Your task to perform on an android device: When is my next appointment? Image 0: 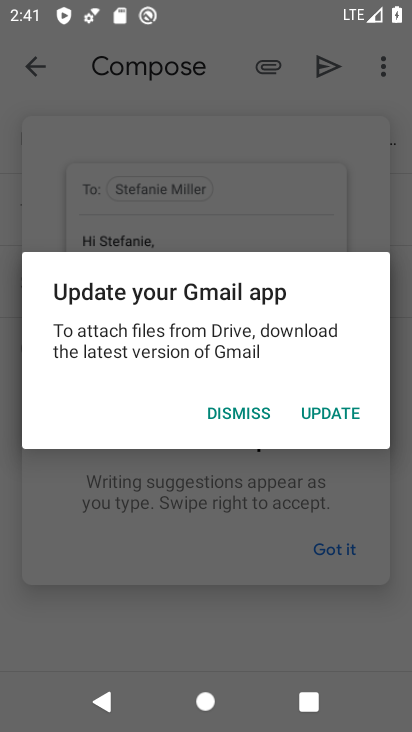
Step 0: press home button
Your task to perform on an android device: When is my next appointment? Image 1: 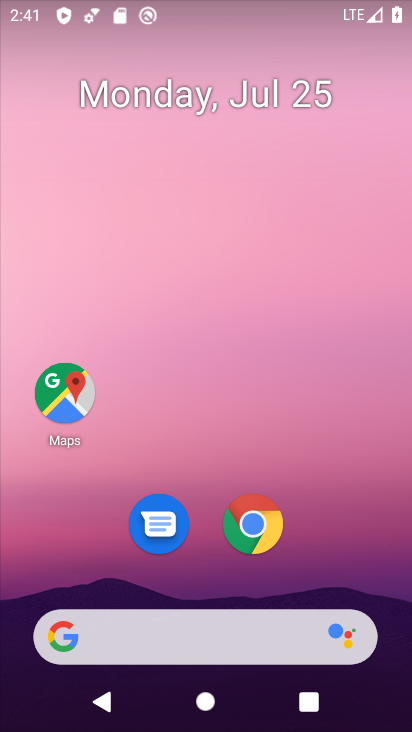
Step 1: drag from (348, 550) to (316, 17)
Your task to perform on an android device: When is my next appointment? Image 2: 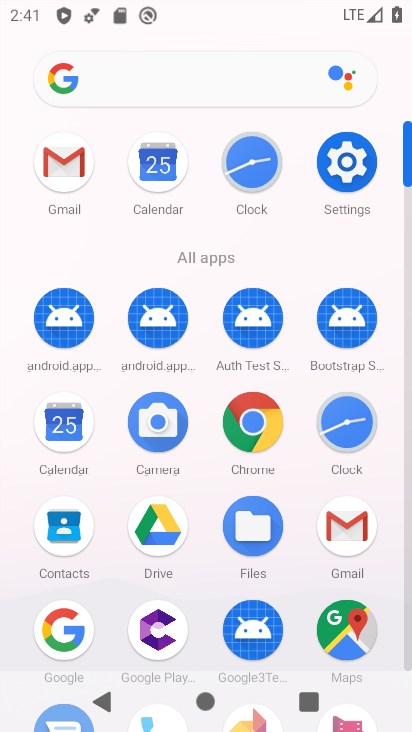
Step 2: click (149, 166)
Your task to perform on an android device: When is my next appointment? Image 3: 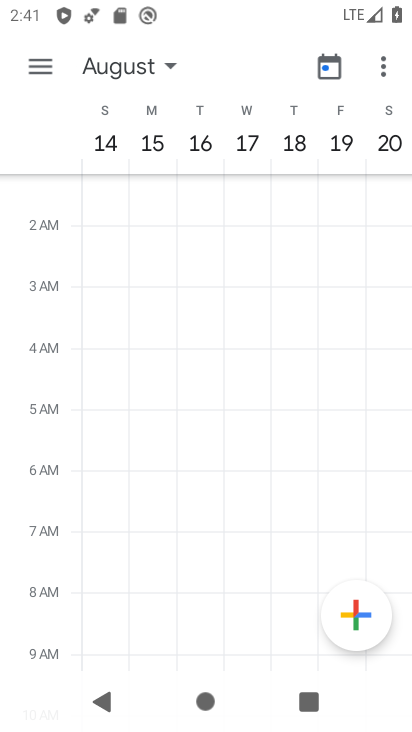
Step 3: drag from (110, 255) to (404, 300)
Your task to perform on an android device: When is my next appointment? Image 4: 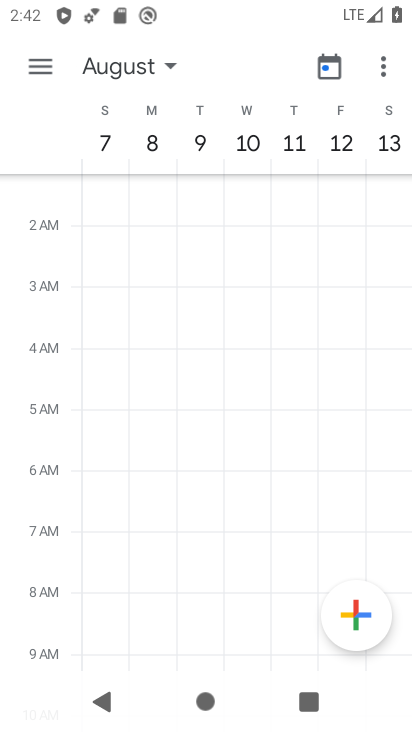
Step 4: drag from (90, 257) to (408, 273)
Your task to perform on an android device: When is my next appointment? Image 5: 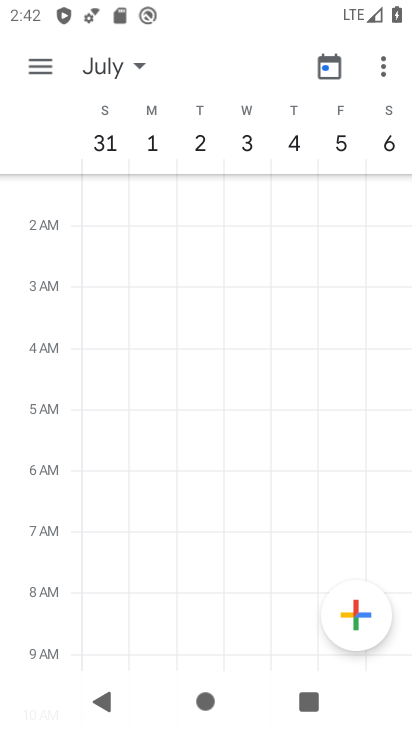
Step 5: drag from (106, 259) to (398, 285)
Your task to perform on an android device: When is my next appointment? Image 6: 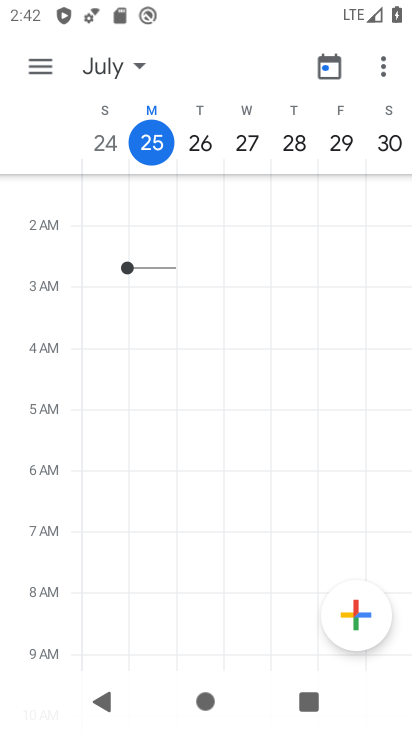
Step 6: click (160, 147)
Your task to perform on an android device: When is my next appointment? Image 7: 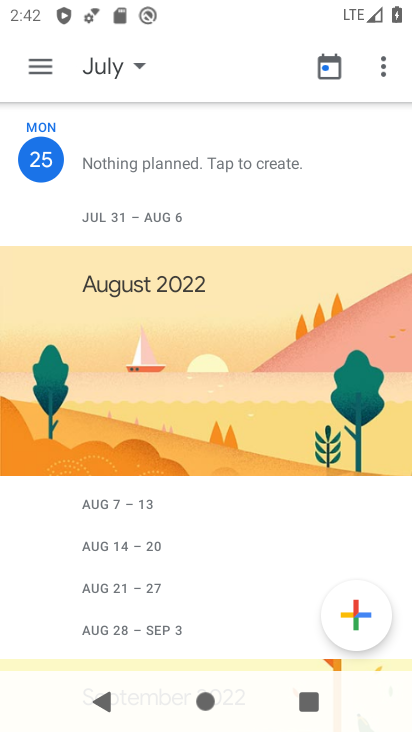
Step 7: task complete